Your task to perform on an android device: change the upload size in google photos Image 0: 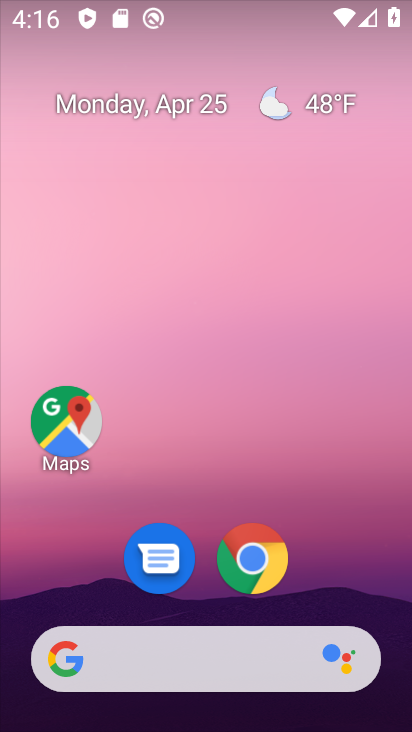
Step 0: drag from (337, 543) to (307, 30)
Your task to perform on an android device: change the upload size in google photos Image 1: 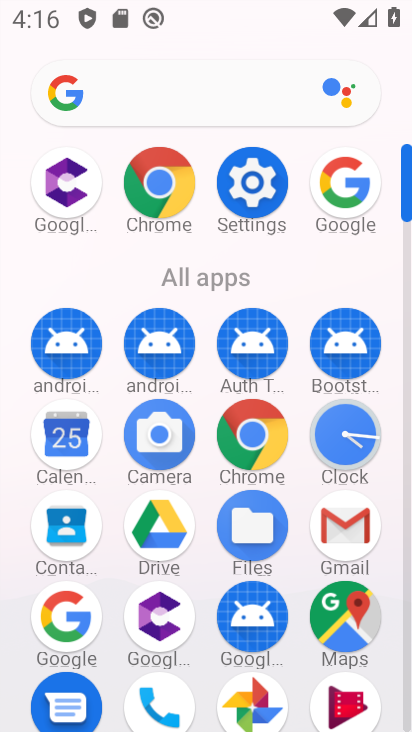
Step 1: click (248, 712)
Your task to perform on an android device: change the upload size in google photos Image 2: 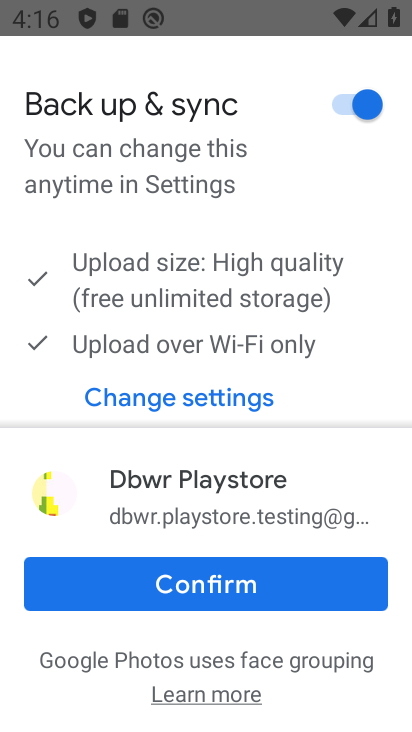
Step 2: click (233, 587)
Your task to perform on an android device: change the upload size in google photos Image 3: 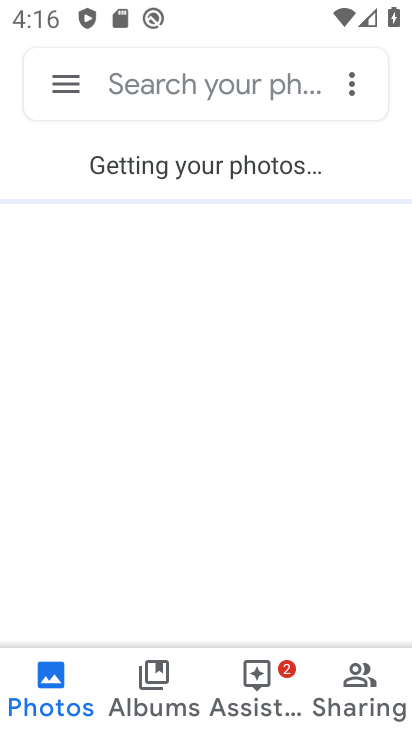
Step 3: click (61, 102)
Your task to perform on an android device: change the upload size in google photos Image 4: 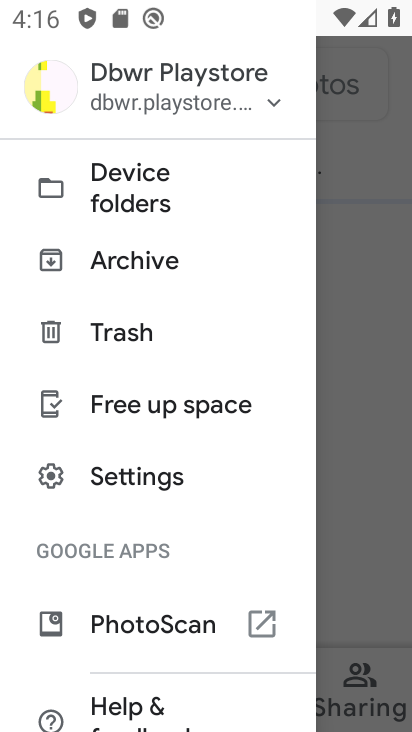
Step 4: click (125, 467)
Your task to perform on an android device: change the upload size in google photos Image 5: 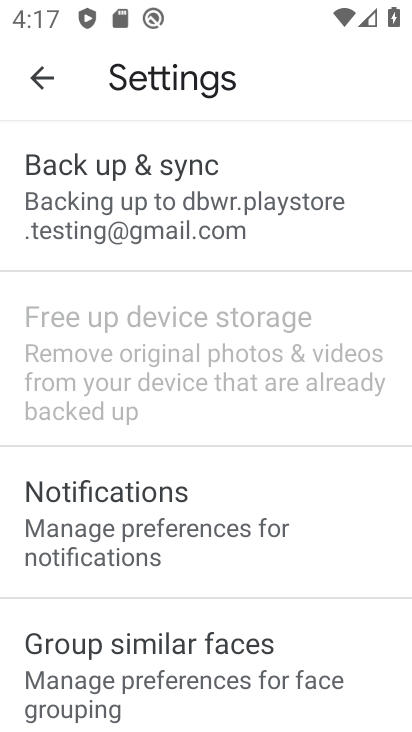
Step 5: drag from (184, 559) to (208, 172)
Your task to perform on an android device: change the upload size in google photos Image 6: 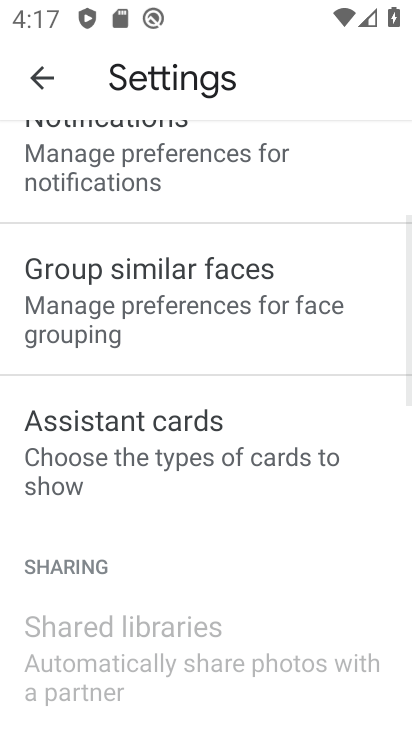
Step 6: drag from (230, 294) to (243, 608)
Your task to perform on an android device: change the upload size in google photos Image 7: 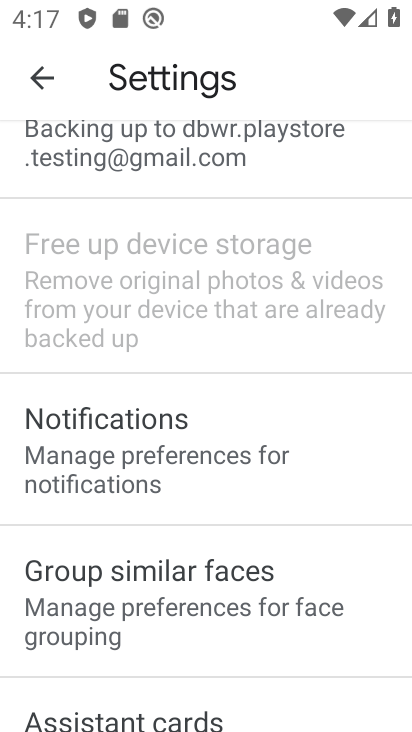
Step 7: drag from (245, 349) to (284, 627)
Your task to perform on an android device: change the upload size in google photos Image 8: 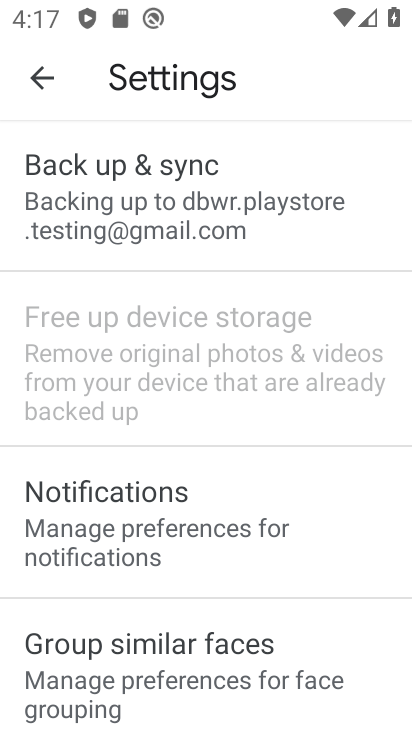
Step 8: click (180, 195)
Your task to perform on an android device: change the upload size in google photos Image 9: 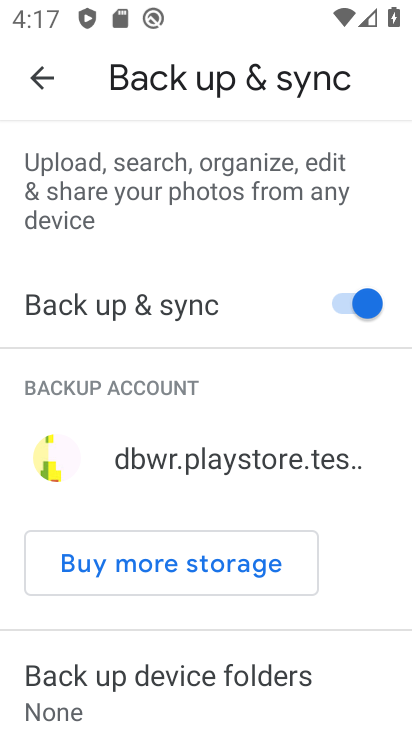
Step 9: drag from (217, 601) to (213, 199)
Your task to perform on an android device: change the upload size in google photos Image 10: 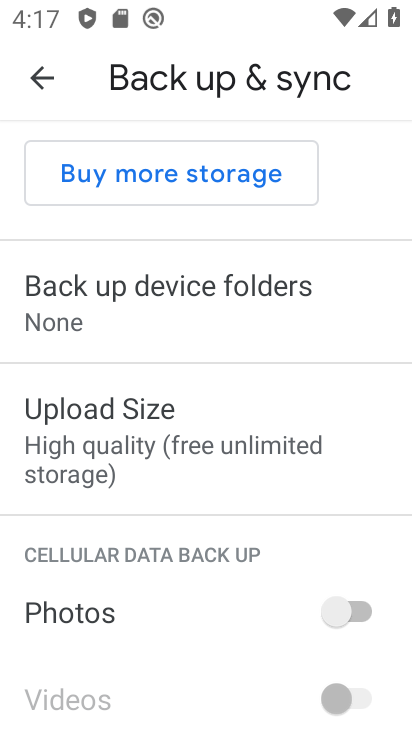
Step 10: click (39, 455)
Your task to perform on an android device: change the upload size in google photos Image 11: 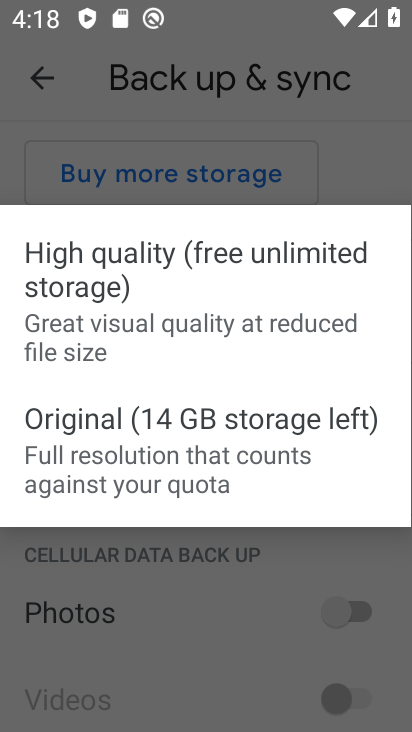
Step 11: press back button
Your task to perform on an android device: change the upload size in google photos Image 12: 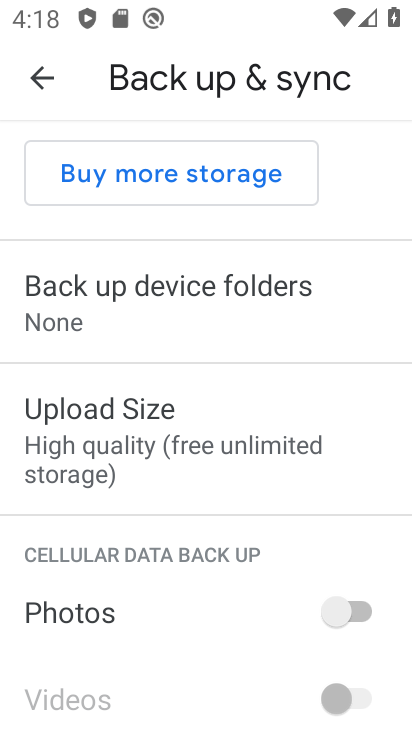
Step 12: click (132, 438)
Your task to perform on an android device: change the upload size in google photos Image 13: 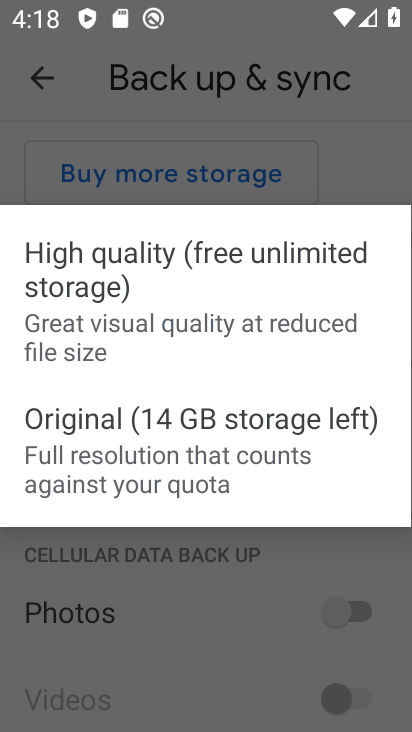
Step 13: click (123, 464)
Your task to perform on an android device: change the upload size in google photos Image 14: 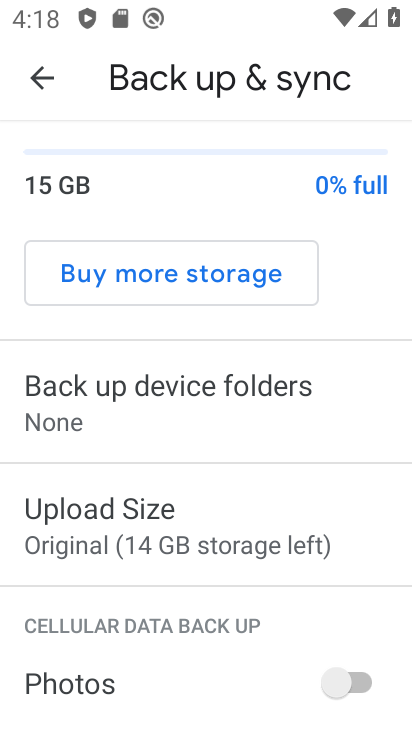
Step 14: task complete